Your task to perform on an android device: open a bookmark in the chrome app Image 0: 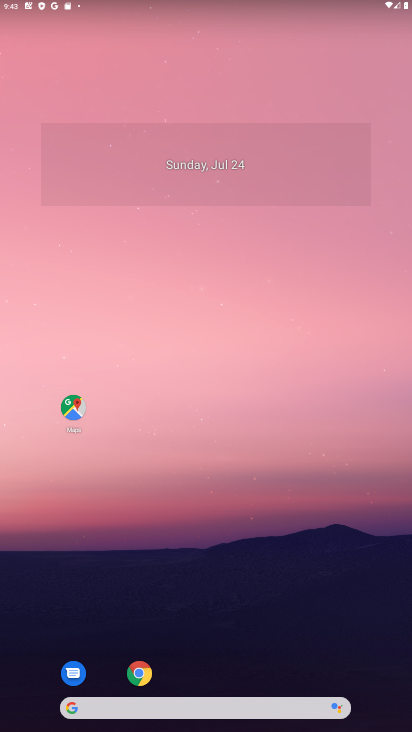
Step 0: click (130, 664)
Your task to perform on an android device: open a bookmark in the chrome app Image 1: 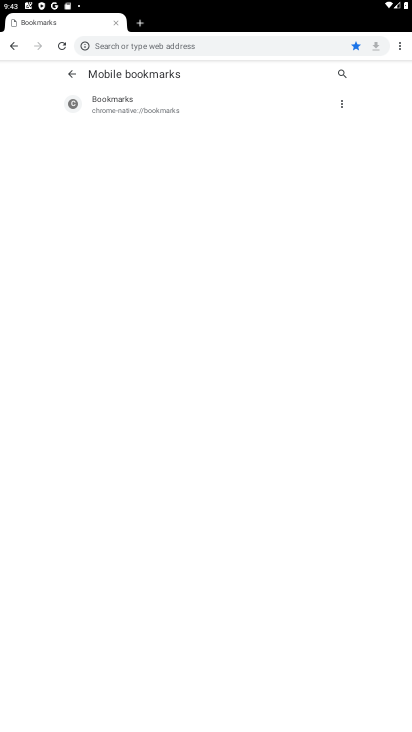
Step 1: click (403, 48)
Your task to perform on an android device: open a bookmark in the chrome app Image 2: 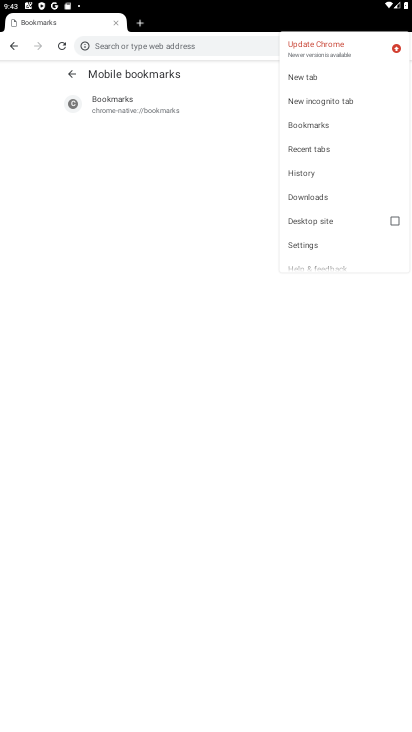
Step 2: click (299, 125)
Your task to perform on an android device: open a bookmark in the chrome app Image 3: 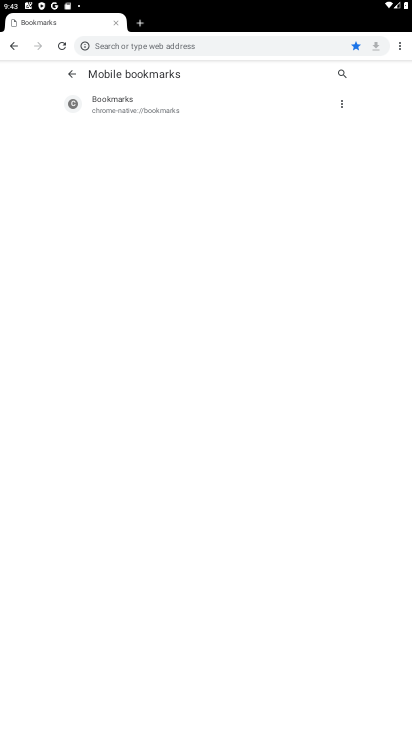
Step 3: task complete